Your task to perform on an android device: Open CNN.com Image 0: 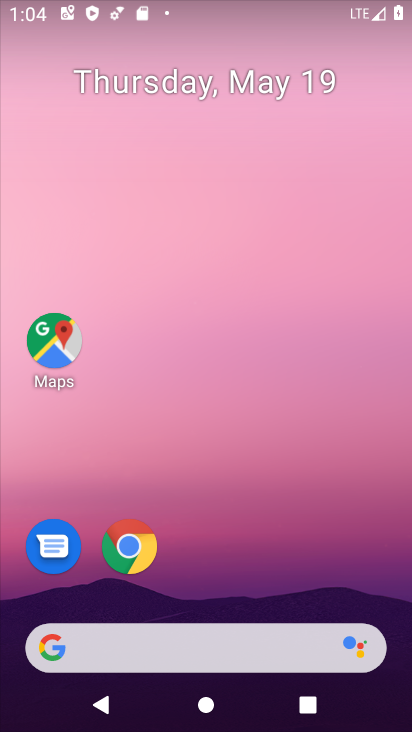
Step 0: click (222, 642)
Your task to perform on an android device: Open CNN.com Image 1: 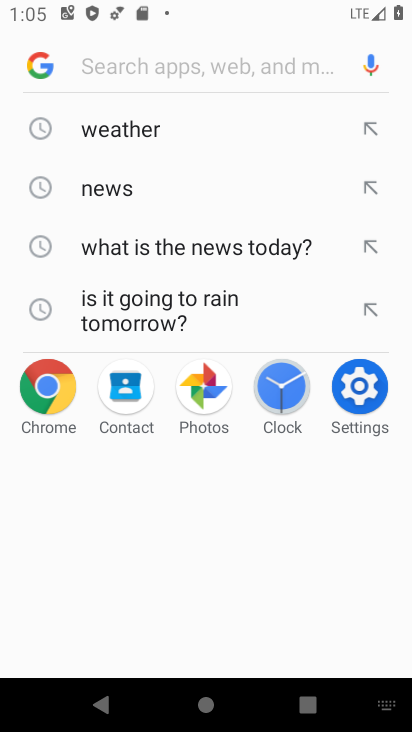
Step 1: type "cnn.com"
Your task to perform on an android device: Open CNN.com Image 2: 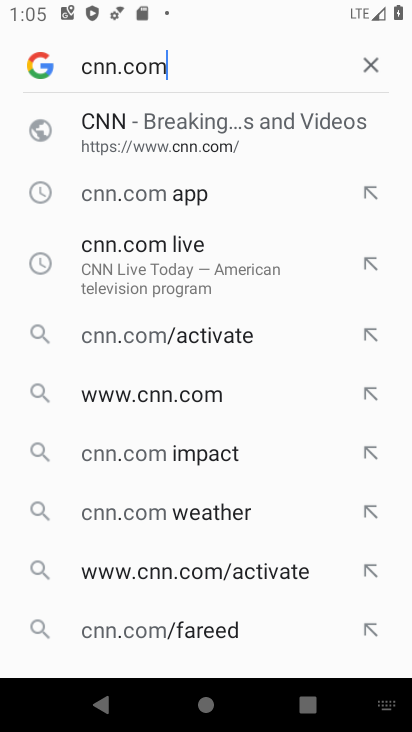
Step 2: click (258, 130)
Your task to perform on an android device: Open CNN.com Image 3: 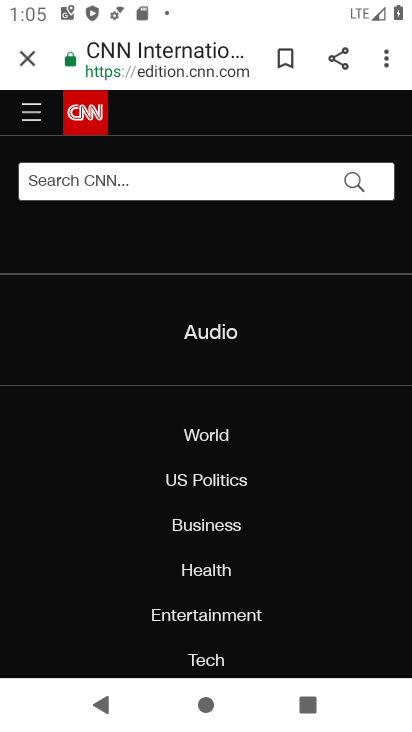
Step 3: task complete